Your task to perform on an android device: Show me the alarms in the clock app Image 0: 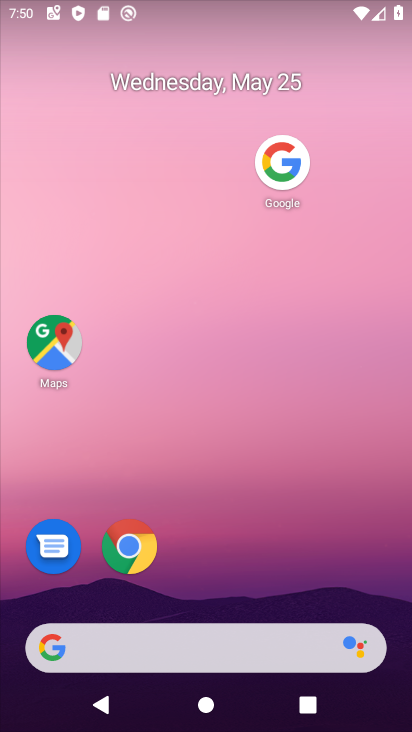
Step 0: drag from (194, 641) to (378, 0)
Your task to perform on an android device: Show me the alarms in the clock app Image 1: 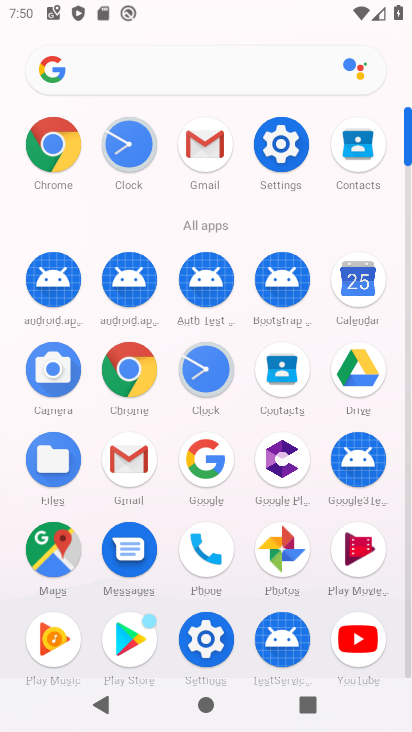
Step 1: click (132, 143)
Your task to perform on an android device: Show me the alarms in the clock app Image 2: 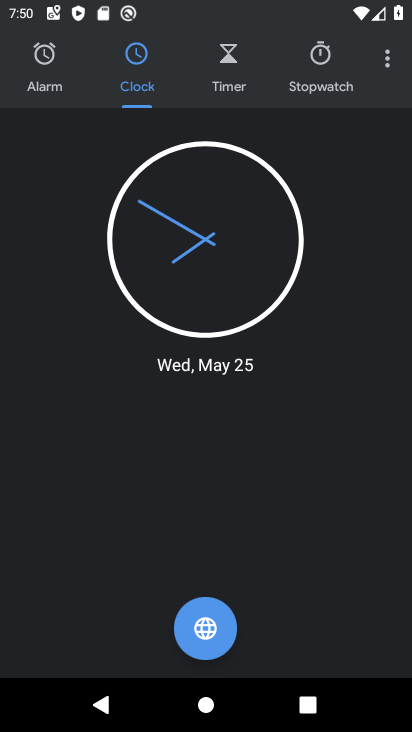
Step 2: click (40, 61)
Your task to perform on an android device: Show me the alarms in the clock app Image 3: 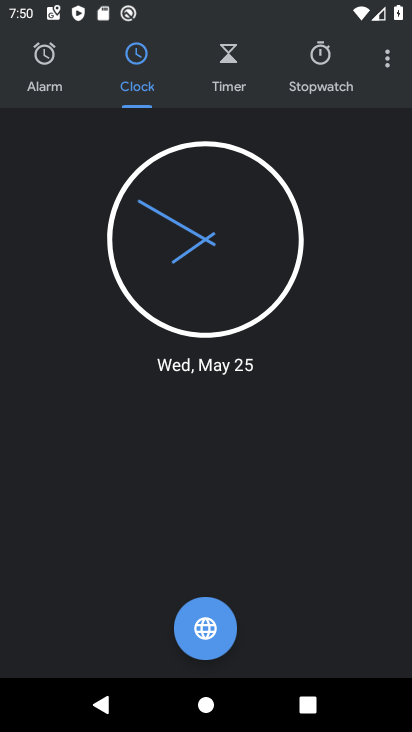
Step 3: click (48, 57)
Your task to perform on an android device: Show me the alarms in the clock app Image 4: 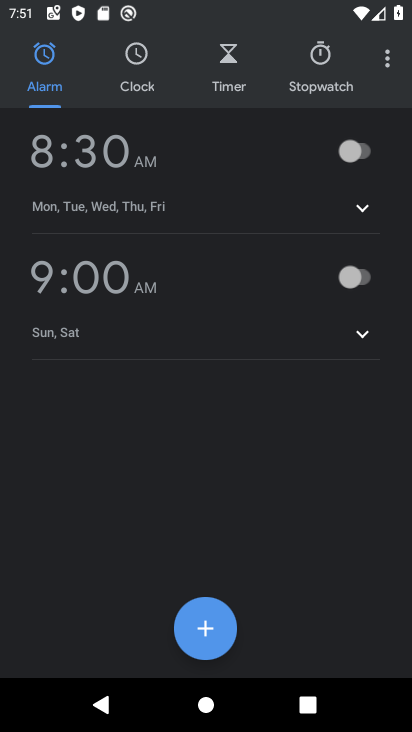
Step 4: task complete